Your task to perform on an android device: refresh tabs in the chrome app Image 0: 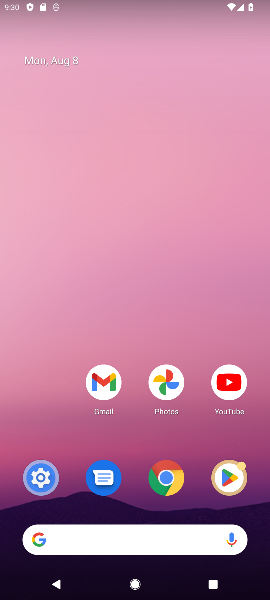
Step 0: drag from (126, 532) to (126, 121)
Your task to perform on an android device: refresh tabs in the chrome app Image 1: 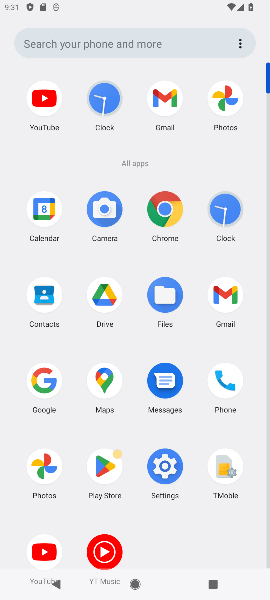
Step 1: click (161, 215)
Your task to perform on an android device: refresh tabs in the chrome app Image 2: 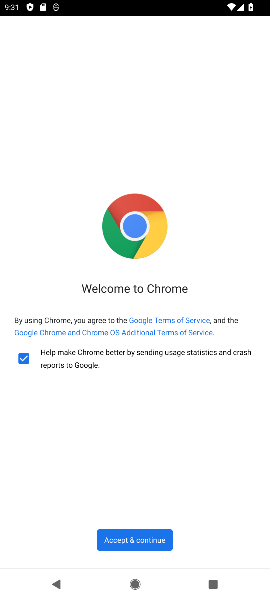
Step 2: click (153, 539)
Your task to perform on an android device: refresh tabs in the chrome app Image 3: 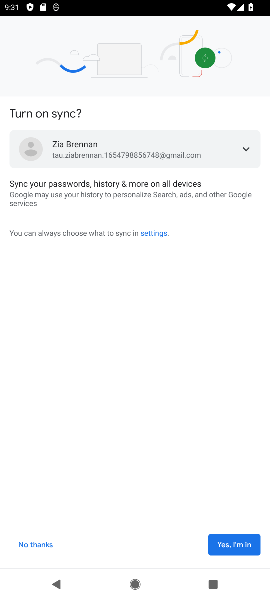
Step 3: click (155, 537)
Your task to perform on an android device: refresh tabs in the chrome app Image 4: 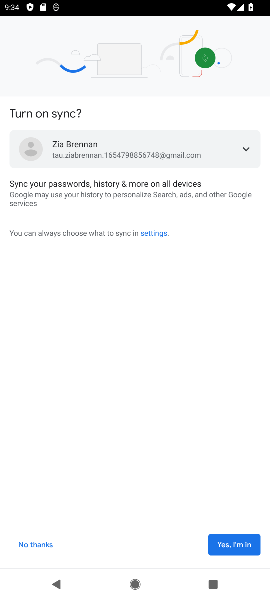
Step 4: click (243, 548)
Your task to perform on an android device: refresh tabs in the chrome app Image 5: 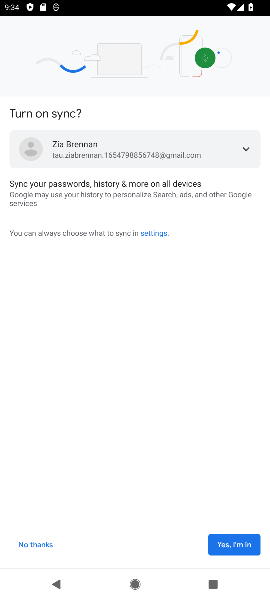
Step 5: click (243, 546)
Your task to perform on an android device: refresh tabs in the chrome app Image 6: 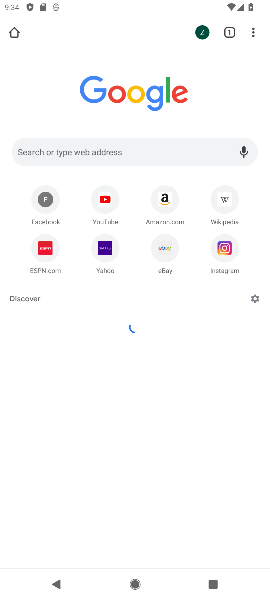
Step 6: click (260, 34)
Your task to perform on an android device: refresh tabs in the chrome app Image 7: 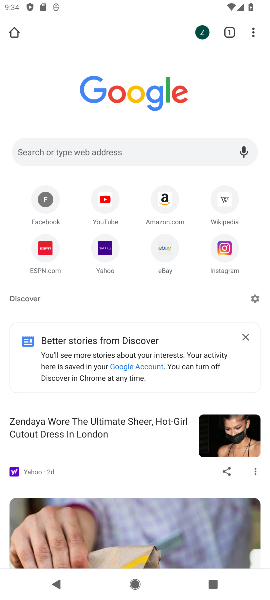
Step 7: click (257, 34)
Your task to perform on an android device: refresh tabs in the chrome app Image 8: 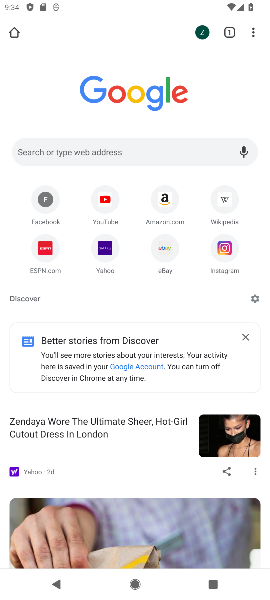
Step 8: click (253, 30)
Your task to perform on an android device: refresh tabs in the chrome app Image 9: 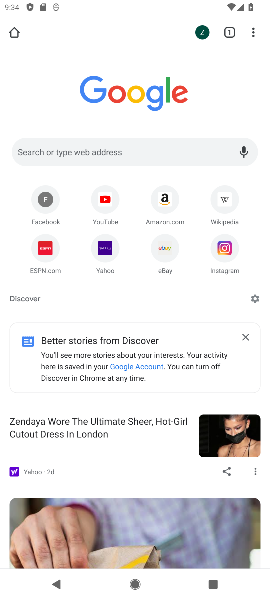
Step 9: task complete